Your task to perform on an android device: turn off translation in the chrome app Image 0: 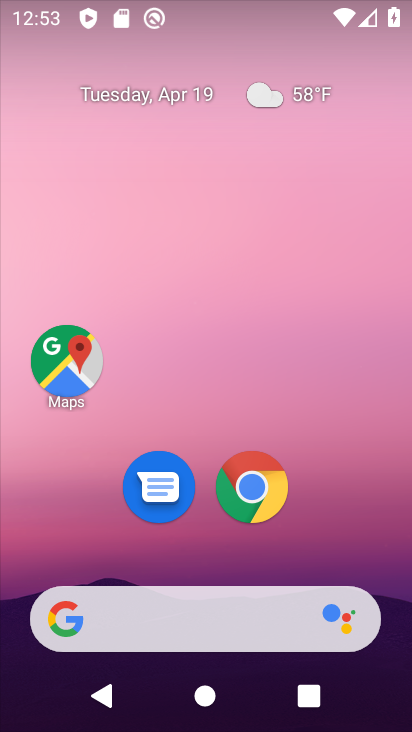
Step 0: click (254, 482)
Your task to perform on an android device: turn off translation in the chrome app Image 1: 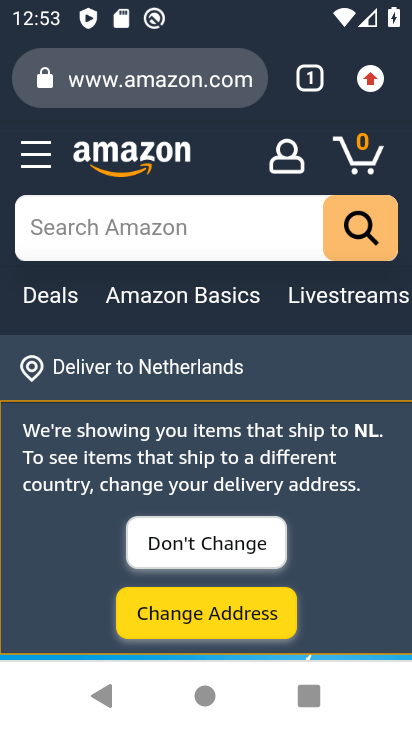
Step 1: click (362, 73)
Your task to perform on an android device: turn off translation in the chrome app Image 2: 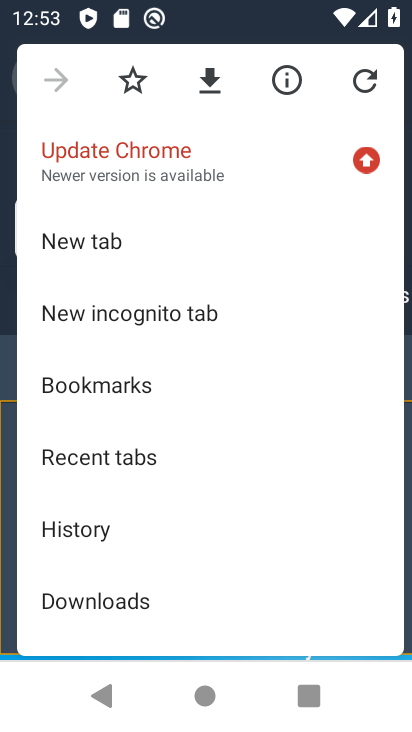
Step 2: drag from (169, 618) to (173, 195)
Your task to perform on an android device: turn off translation in the chrome app Image 3: 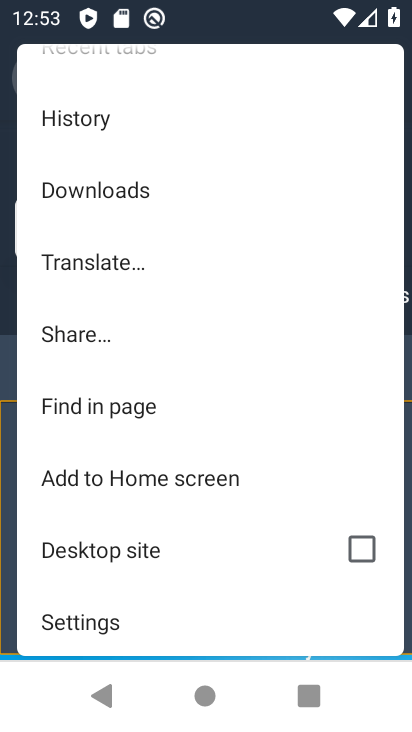
Step 3: click (93, 621)
Your task to perform on an android device: turn off translation in the chrome app Image 4: 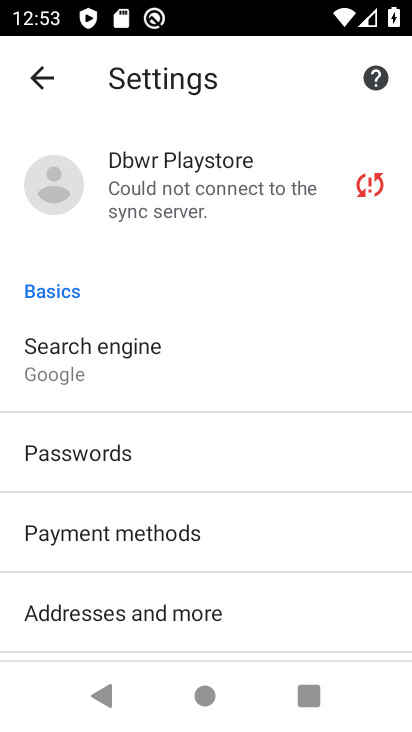
Step 4: drag from (183, 613) to (188, 225)
Your task to perform on an android device: turn off translation in the chrome app Image 5: 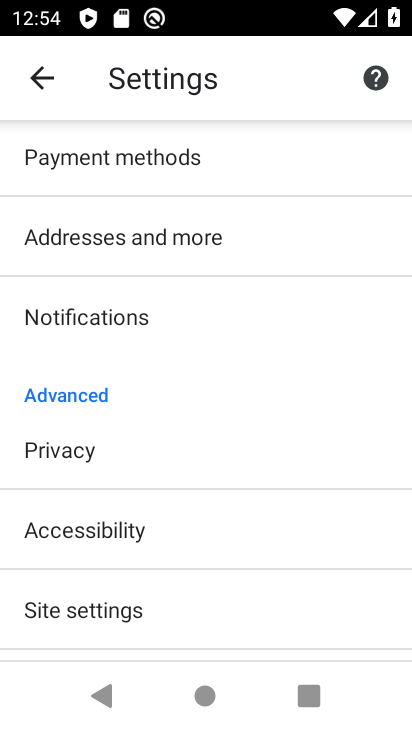
Step 5: drag from (153, 635) to (188, 231)
Your task to perform on an android device: turn off translation in the chrome app Image 6: 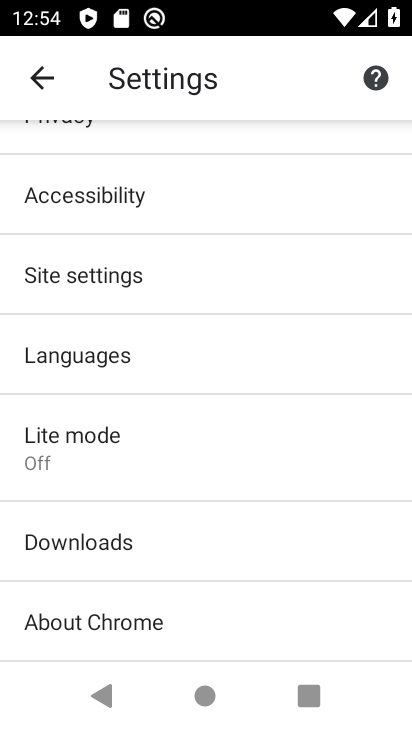
Step 6: click (73, 343)
Your task to perform on an android device: turn off translation in the chrome app Image 7: 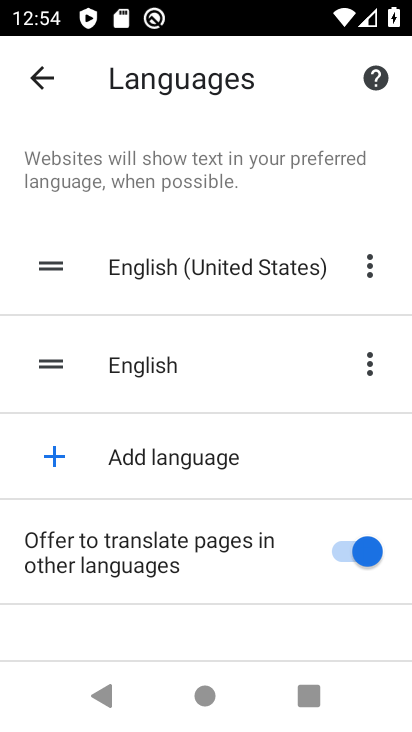
Step 7: click (337, 552)
Your task to perform on an android device: turn off translation in the chrome app Image 8: 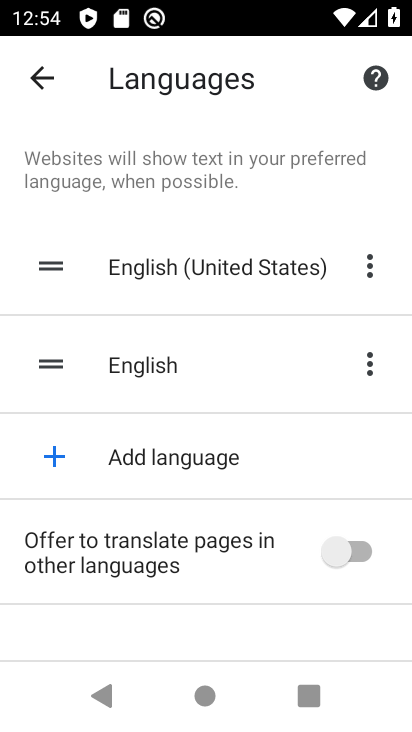
Step 8: task complete